Your task to perform on an android device: Show the shopping cart on ebay. Add "jbl flip 4" to the cart on ebay, then select checkout. Image 0: 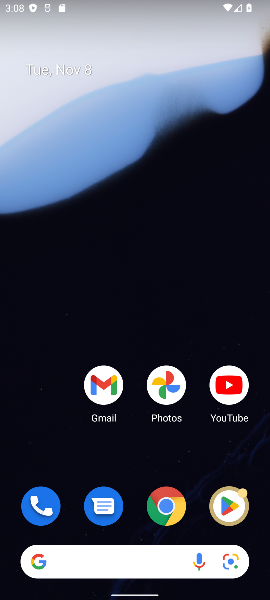
Step 0: drag from (189, 450) to (206, 71)
Your task to perform on an android device: Show the shopping cart on ebay. Add "jbl flip 4" to the cart on ebay, then select checkout. Image 1: 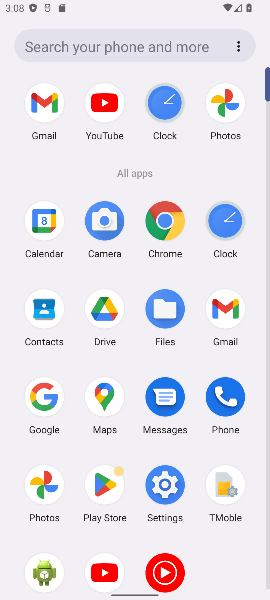
Step 1: click (55, 398)
Your task to perform on an android device: Show the shopping cart on ebay. Add "jbl flip 4" to the cart on ebay, then select checkout. Image 2: 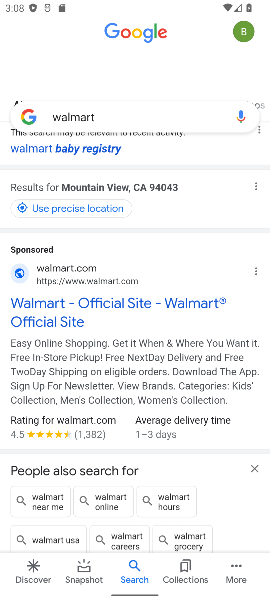
Step 2: click (156, 114)
Your task to perform on an android device: Show the shopping cart on ebay. Add "jbl flip 4" to the cart on ebay, then select checkout. Image 3: 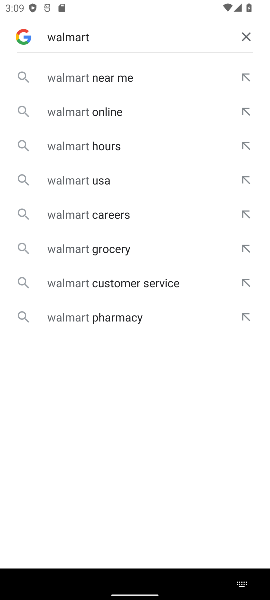
Step 3: click (240, 36)
Your task to perform on an android device: Show the shopping cart on ebay. Add "jbl flip 4" to the cart on ebay, then select checkout. Image 4: 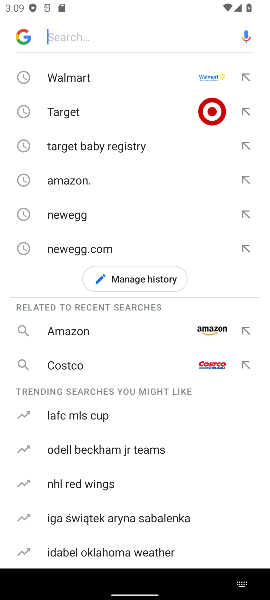
Step 4: type "ebay"
Your task to perform on an android device: Show the shopping cart on ebay. Add "jbl flip 4" to the cart on ebay, then select checkout. Image 5: 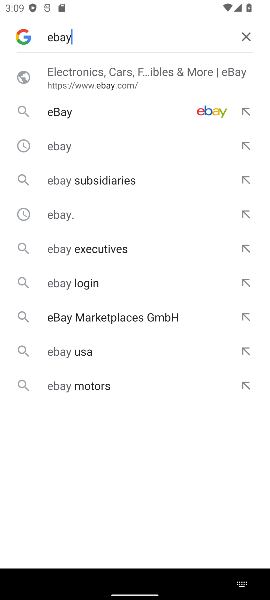
Step 5: click (93, 84)
Your task to perform on an android device: Show the shopping cart on ebay. Add "jbl flip 4" to the cart on ebay, then select checkout. Image 6: 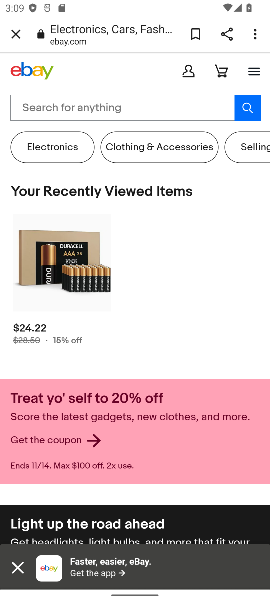
Step 6: click (126, 113)
Your task to perform on an android device: Show the shopping cart on ebay. Add "jbl flip 4" to the cart on ebay, then select checkout. Image 7: 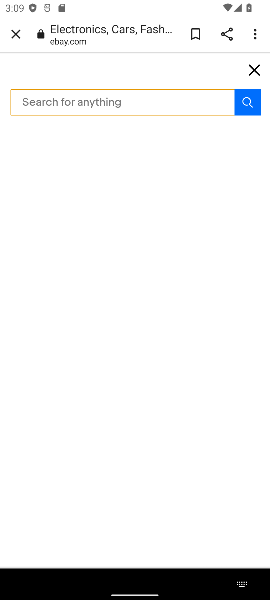
Step 7: type "jbl flip 4"
Your task to perform on an android device: Show the shopping cart on ebay. Add "jbl flip 4" to the cart on ebay, then select checkout. Image 8: 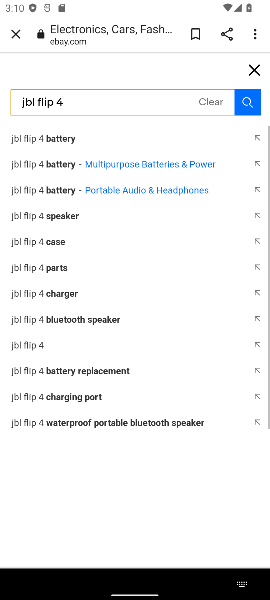
Step 8: click (53, 343)
Your task to perform on an android device: Show the shopping cart on ebay. Add "jbl flip 4" to the cart on ebay, then select checkout. Image 9: 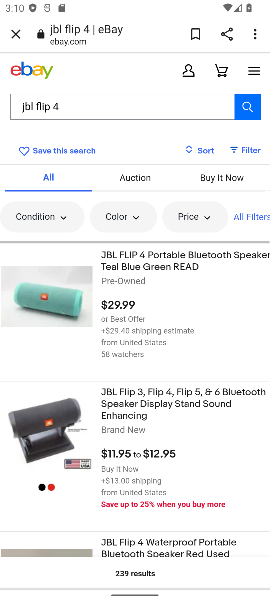
Step 9: click (123, 272)
Your task to perform on an android device: Show the shopping cart on ebay. Add "jbl flip 4" to the cart on ebay, then select checkout. Image 10: 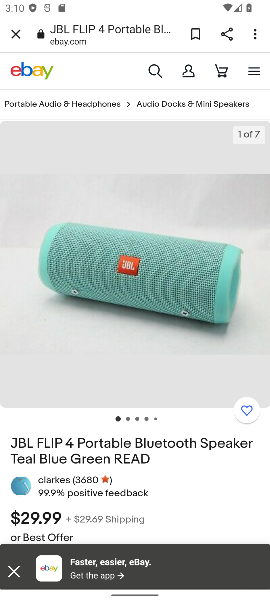
Step 10: drag from (165, 476) to (163, 292)
Your task to perform on an android device: Show the shopping cart on ebay. Add "jbl flip 4" to the cart on ebay, then select checkout. Image 11: 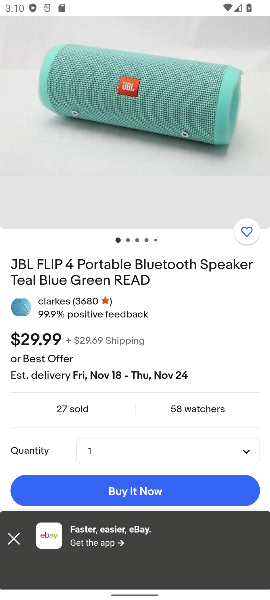
Step 11: click (9, 544)
Your task to perform on an android device: Show the shopping cart on ebay. Add "jbl flip 4" to the cart on ebay, then select checkout. Image 12: 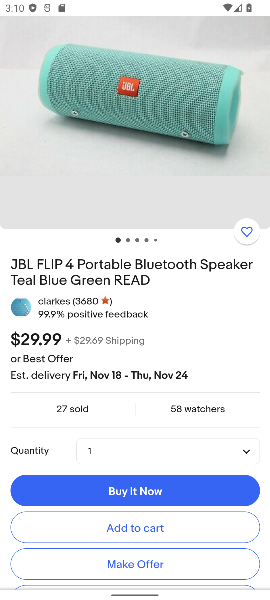
Step 12: click (103, 538)
Your task to perform on an android device: Show the shopping cart on ebay. Add "jbl flip 4" to the cart on ebay, then select checkout. Image 13: 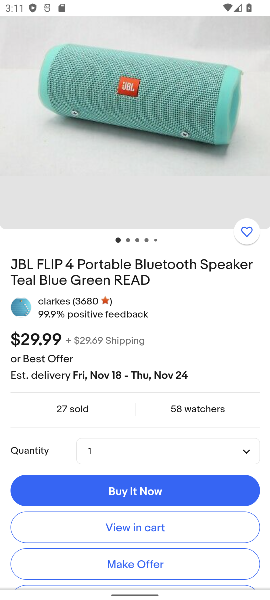
Step 13: click (167, 540)
Your task to perform on an android device: Show the shopping cart on ebay. Add "jbl flip 4" to the cart on ebay, then select checkout. Image 14: 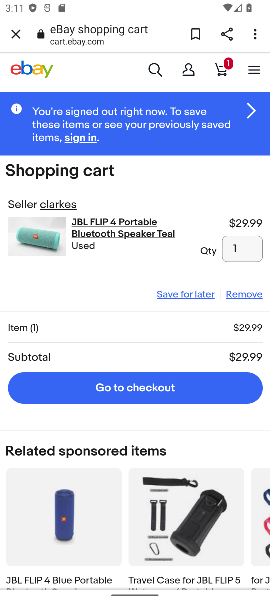
Step 14: click (234, 381)
Your task to perform on an android device: Show the shopping cart on ebay. Add "jbl flip 4" to the cart on ebay, then select checkout. Image 15: 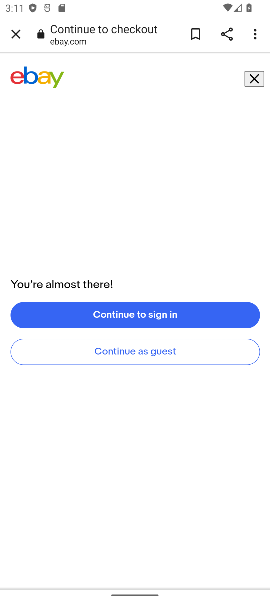
Step 15: task complete